Your task to perform on an android device: turn on showing notifications on the lock screen Image 0: 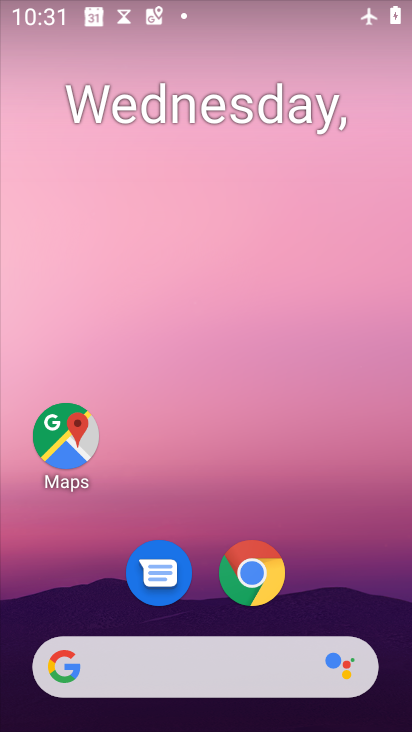
Step 0: drag from (316, 606) to (302, 255)
Your task to perform on an android device: turn on showing notifications on the lock screen Image 1: 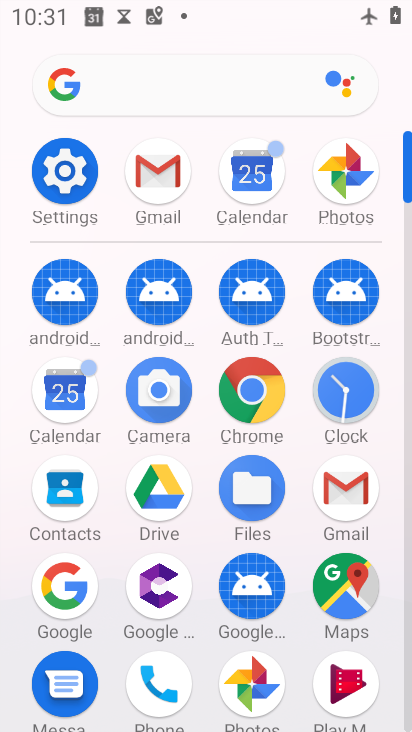
Step 1: click (51, 166)
Your task to perform on an android device: turn on showing notifications on the lock screen Image 2: 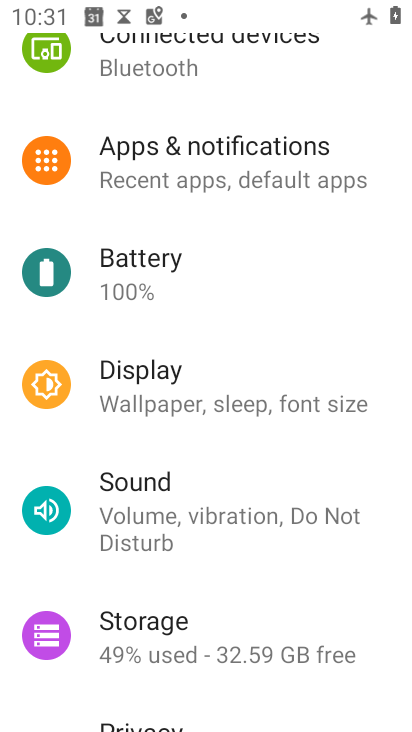
Step 2: click (185, 144)
Your task to perform on an android device: turn on showing notifications on the lock screen Image 3: 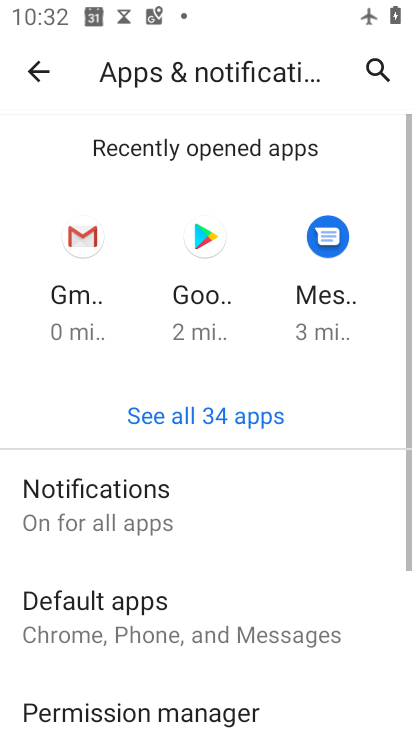
Step 3: click (117, 508)
Your task to perform on an android device: turn on showing notifications on the lock screen Image 4: 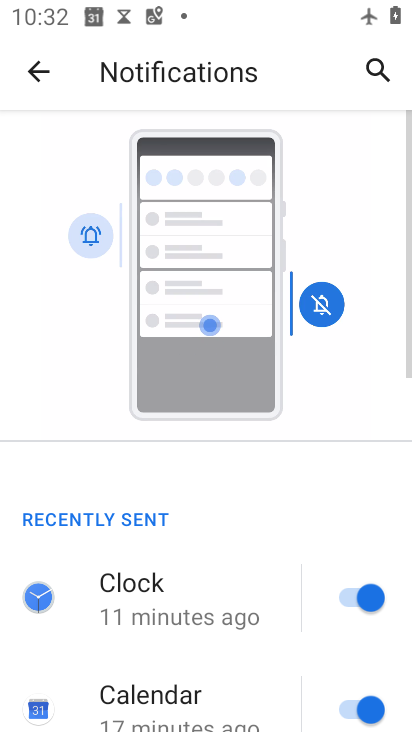
Step 4: drag from (185, 606) to (202, 243)
Your task to perform on an android device: turn on showing notifications on the lock screen Image 5: 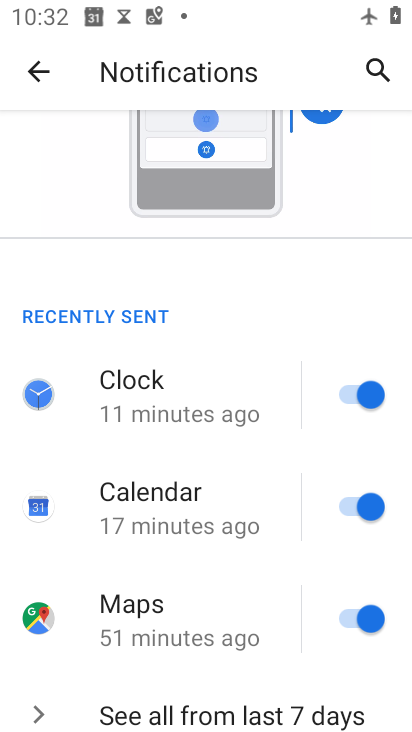
Step 5: drag from (195, 663) to (226, 267)
Your task to perform on an android device: turn on showing notifications on the lock screen Image 6: 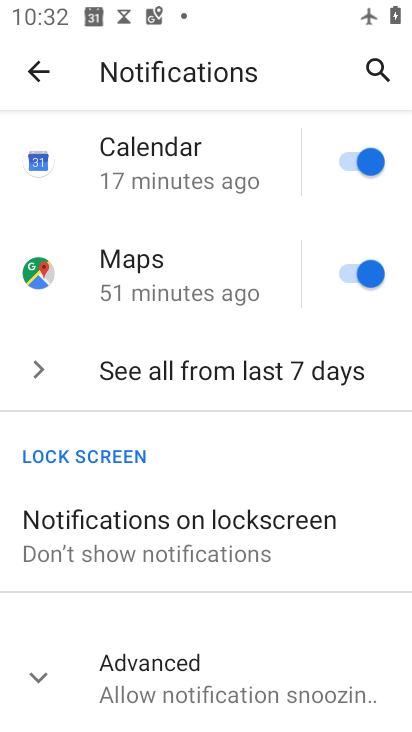
Step 6: click (171, 551)
Your task to perform on an android device: turn on showing notifications on the lock screen Image 7: 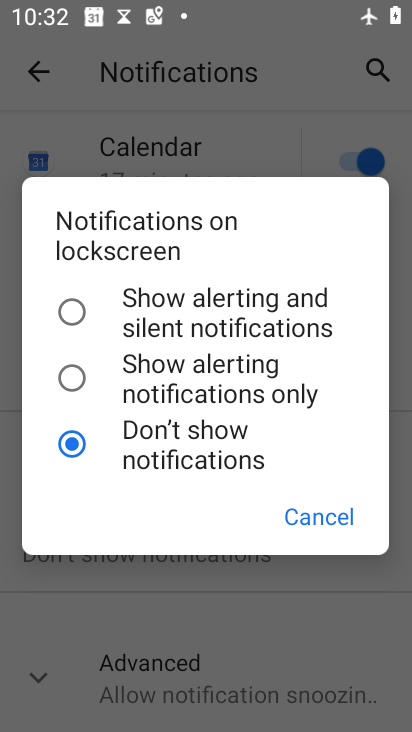
Step 7: click (133, 305)
Your task to perform on an android device: turn on showing notifications on the lock screen Image 8: 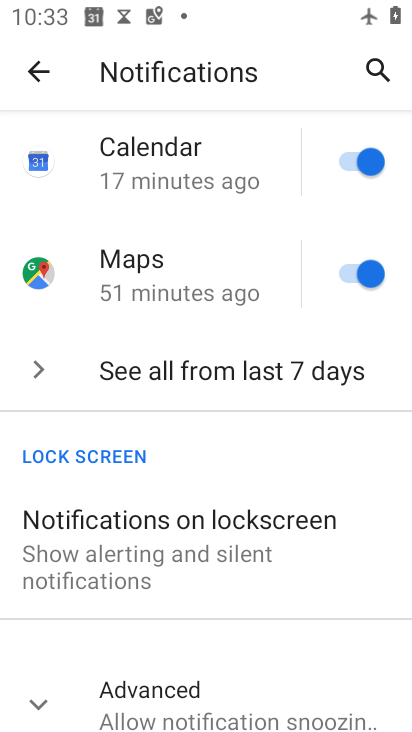
Step 8: task complete